Your task to perform on an android device: Go to notification settings Image 0: 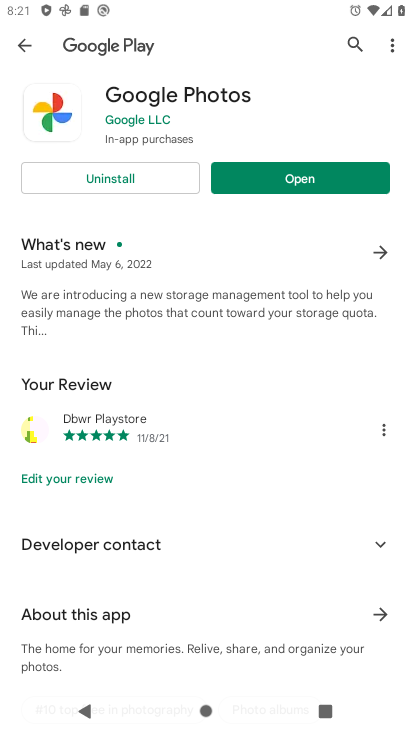
Step 0: press home button
Your task to perform on an android device: Go to notification settings Image 1: 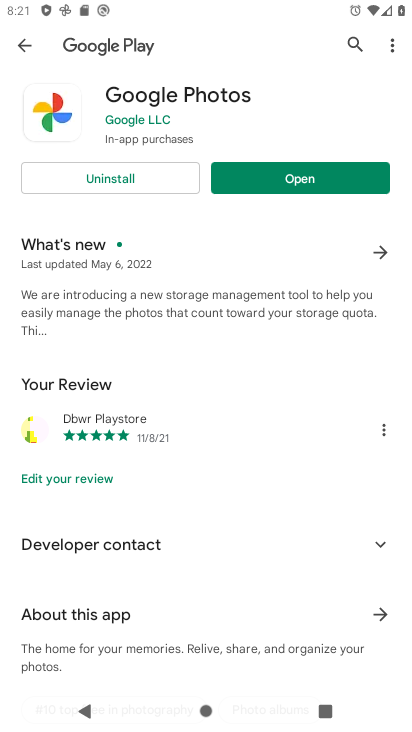
Step 1: press home button
Your task to perform on an android device: Go to notification settings Image 2: 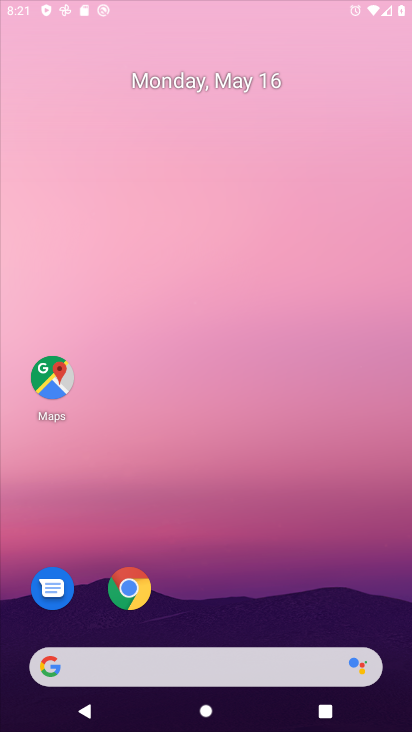
Step 2: press home button
Your task to perform on an android device: Go to notification settings Image 3: 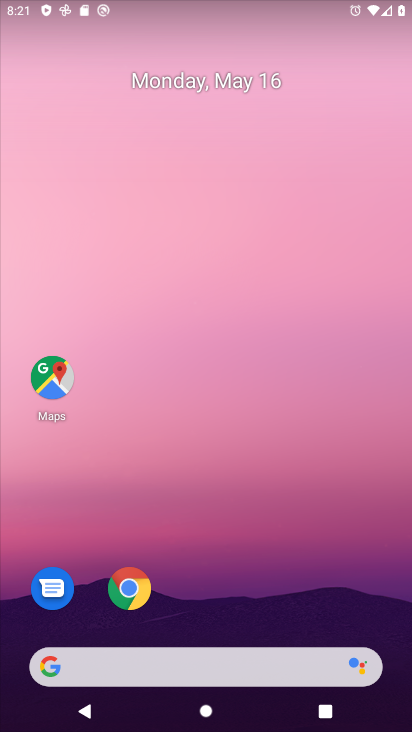
Step 3: drag from (271, 608) to (184, 194)
Your task to perform on an android device: Go to notification settings Image 4: 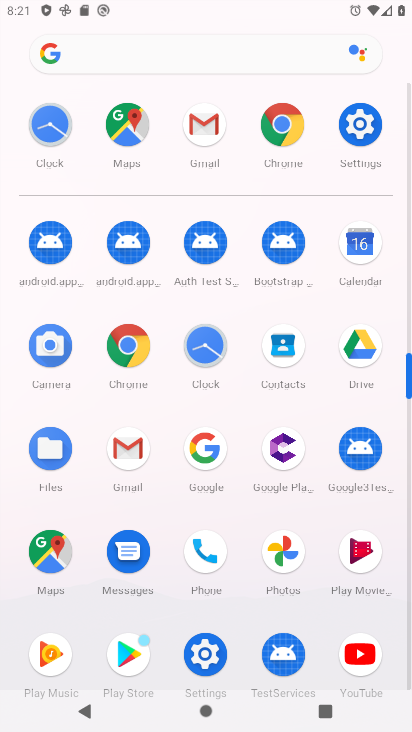
Step 4: click (350, 112)
Your task to perform on an android device: Go to notification settings Image 5: 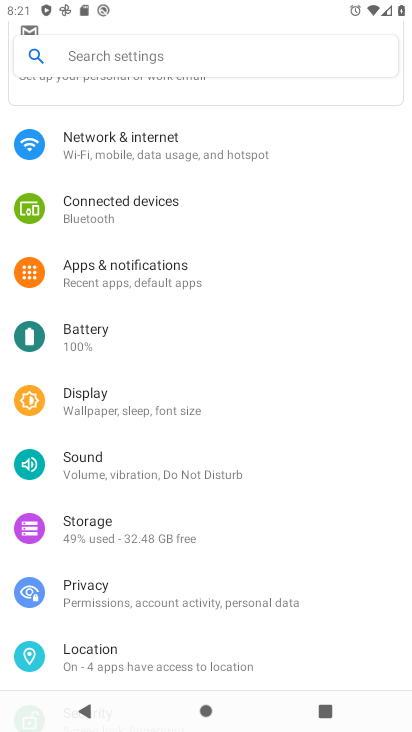
Step 5: click (139, 273)
Your task to perform on an android device: Go to notification settings Image 6: 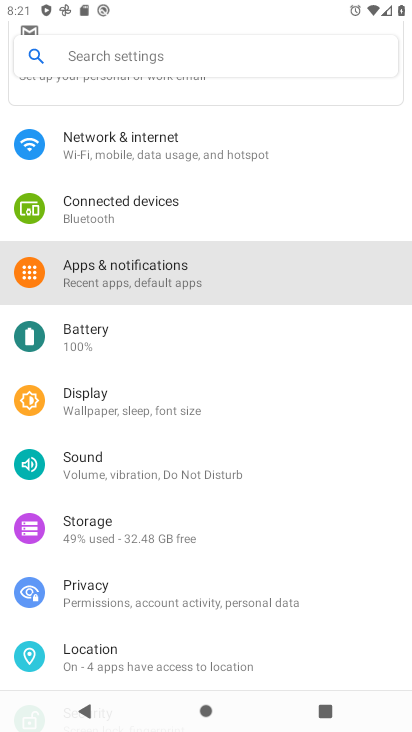
Step 6: click (139, 273)
Your task to perform on an android device: Go to notification settings Image 7: 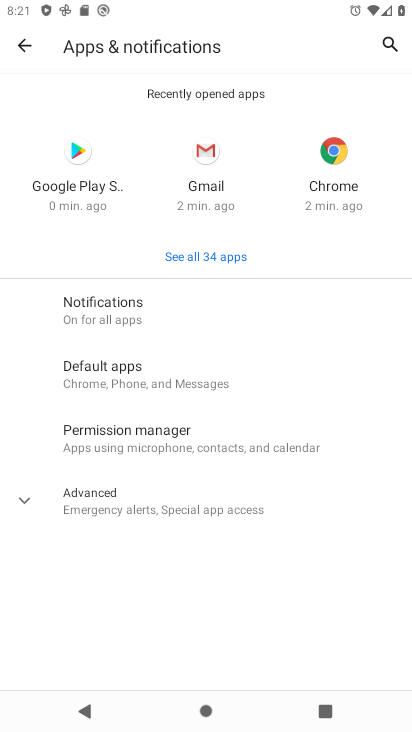
Step 7: click (103, 295)
Your task to perform on an android device: Go to notification settings Image 8: 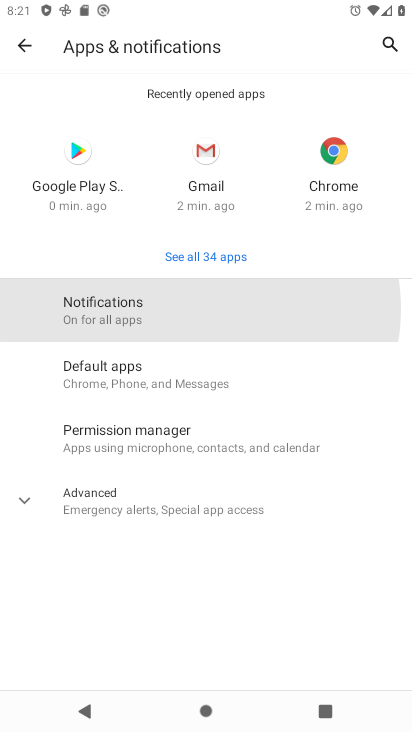
Step 8: click (115, 300)
Your task to perform on an android device: Go to notification settings Image 9: 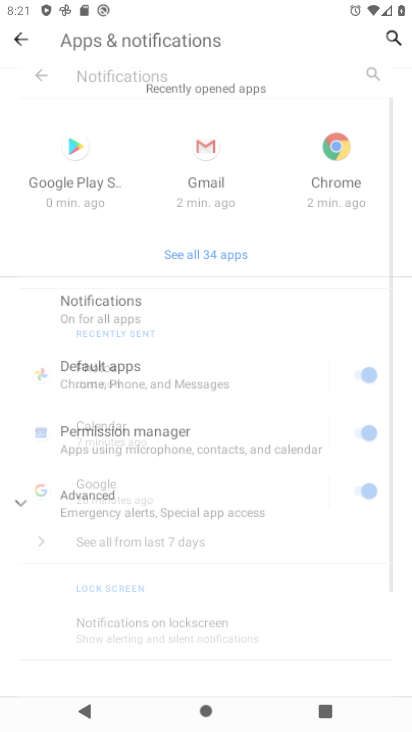
Step 9: click (117, 301)
Your task to perform on an android device: Go to notification settings Image 10: 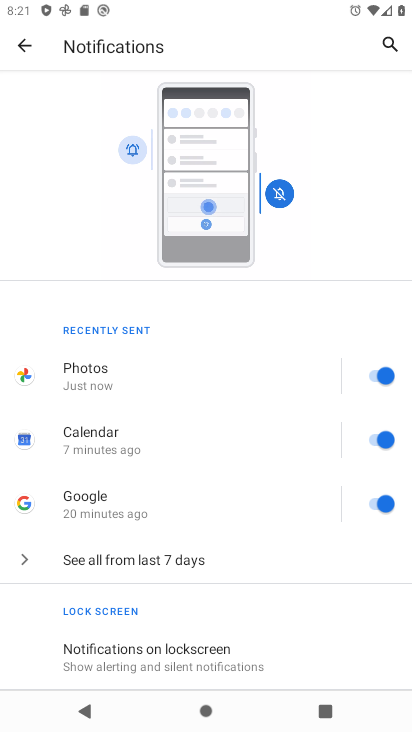
Step 10: click (234, 306)
Your task to perform on an android device: Go to notification settings Image 11: 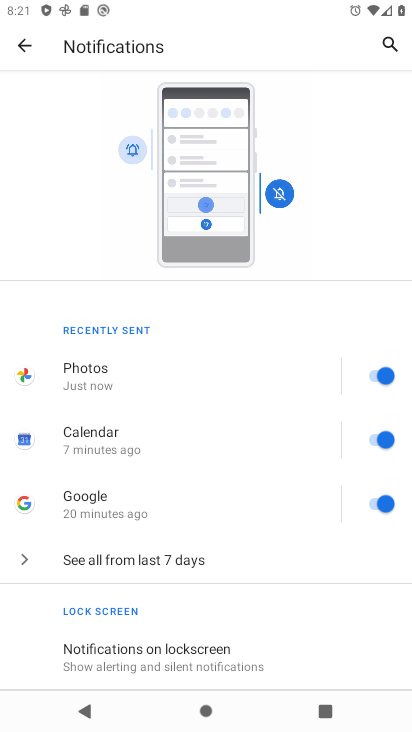
Step 11: drag from (242, 506) to (214, 225)
Your task to perform on an android device: Go to notification settings Image 12: 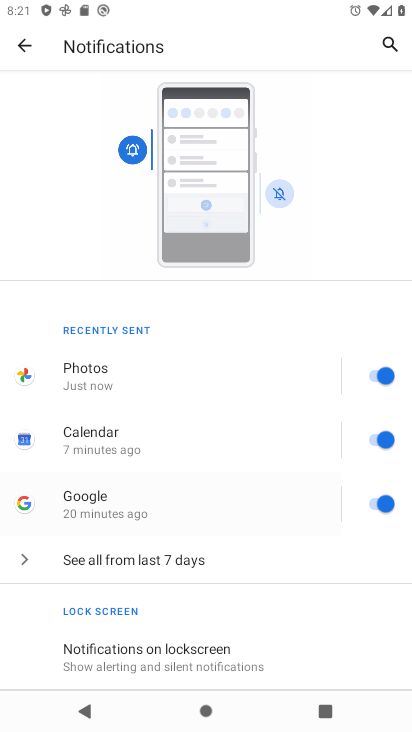
Step 12: drag from (197, 531) to (162, 91)
Your task to perform on an android device: Go to notification settings Image 13: 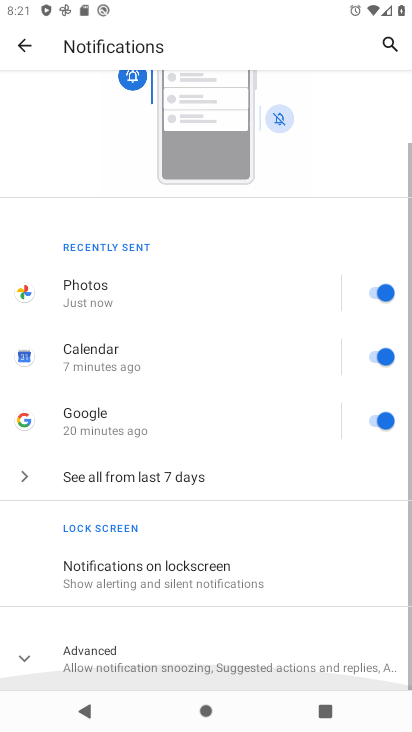
Step 13: drag from (169, 390) to (106, 79)
Your task to perform on an android device: Go to notification settings Image 14: 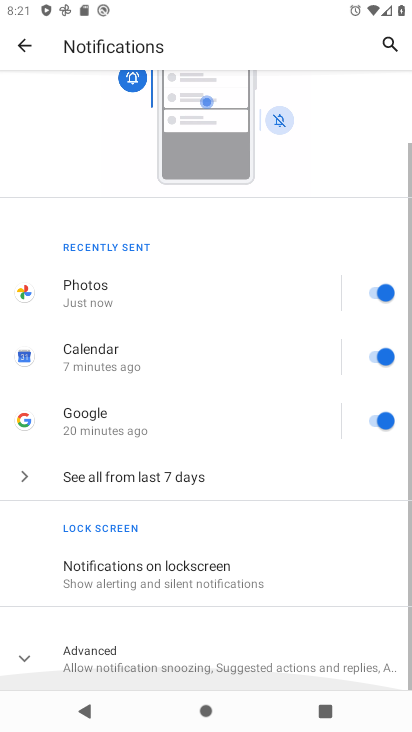
Step 14: drag from (136, 195) to (90, 34)
Your task to perform on an android device: Go to notification settings Image 15: 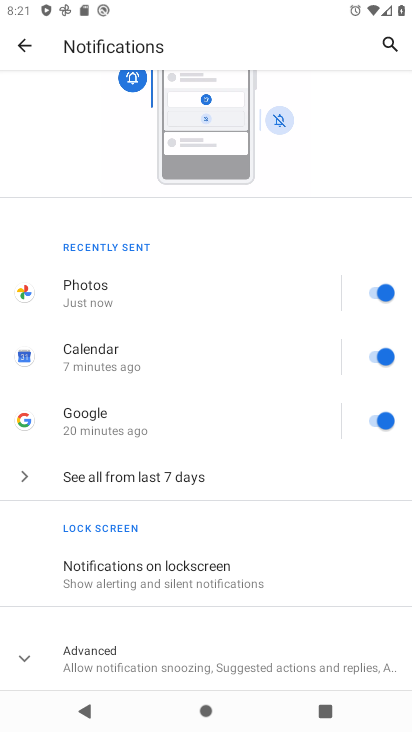
Step 15: drag from (169, 562) to (160, 84)
Your task to perform on an android device: Go to notification settings Image 16: 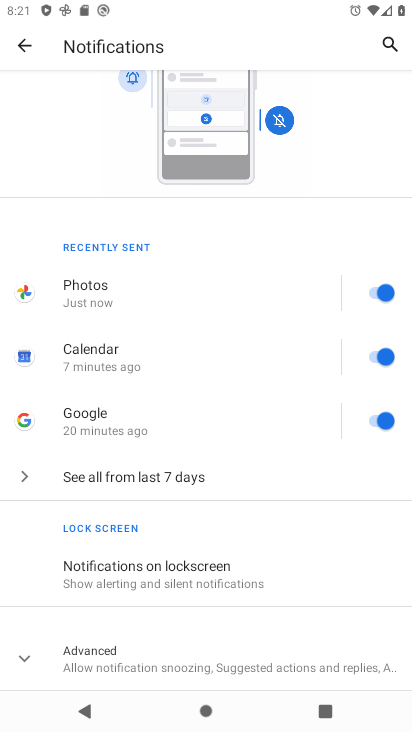
Step 16: click (88, 652)
Your task to perform on an android device: Go to notification settings Image 17: 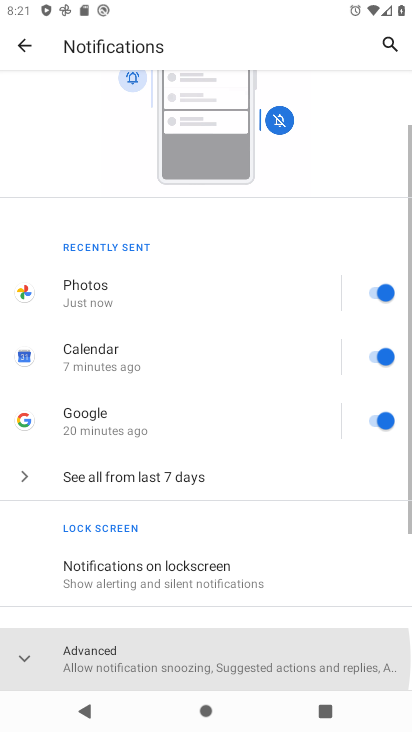
Step 17: click (90, 653)
Your task to perform on an android device: Go to notification settings Image 18: 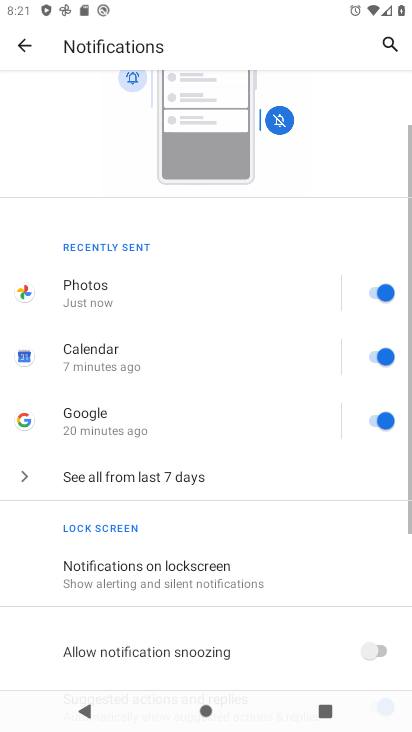
Step 18: click (92, 653)
Your task to perform on an android device: Go to notification settings Image 19: 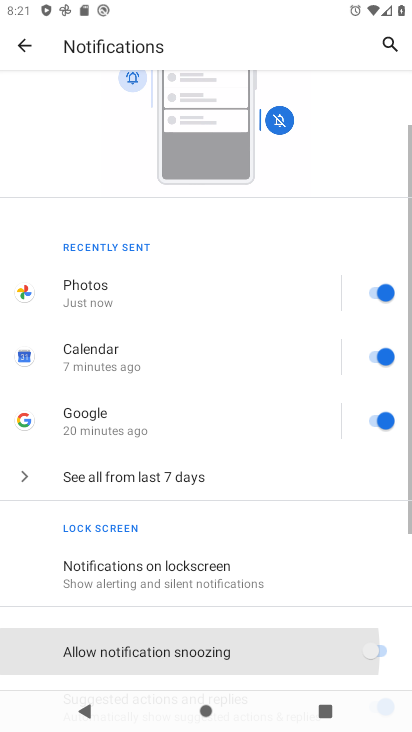
Step 19: click (91, 653)
Your task to perform on an android device: Go to notification settings Image 20: 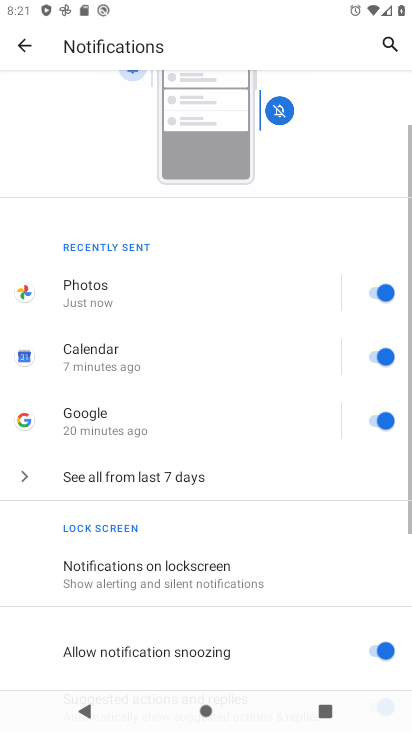
Step 20: task complete